Your task to perform on an android device: Open the calendar and show me this week's events Image 0: 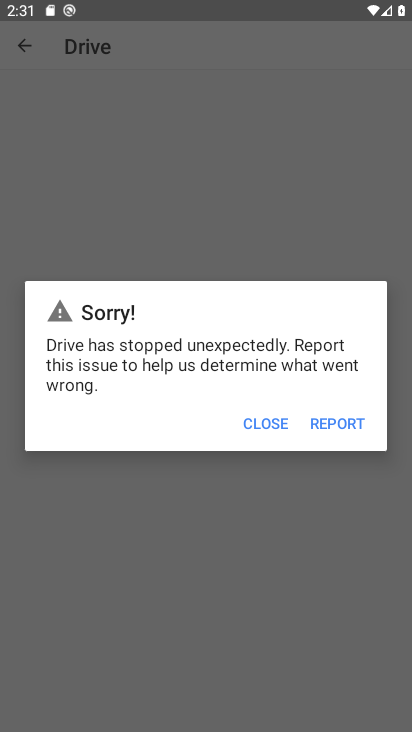
Step 0: press home button
Your task to perform on an android device: Open the calendar and show me this week's events Image 1: 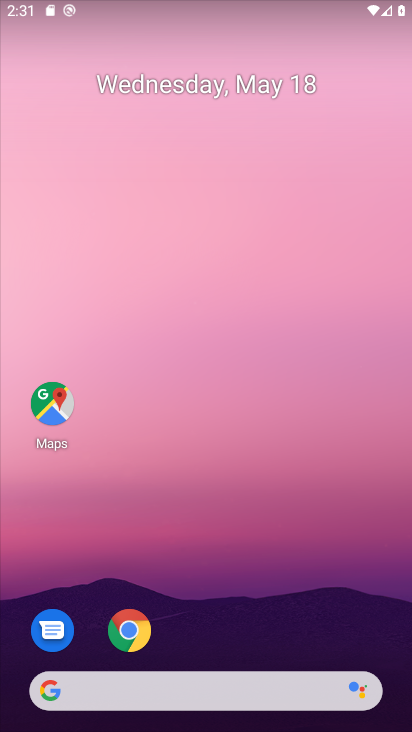
Step 1: drag from (205, 648) to (202, 190)
Your task to perform on an android device: Open the calendar and show me this week's events Image 2: 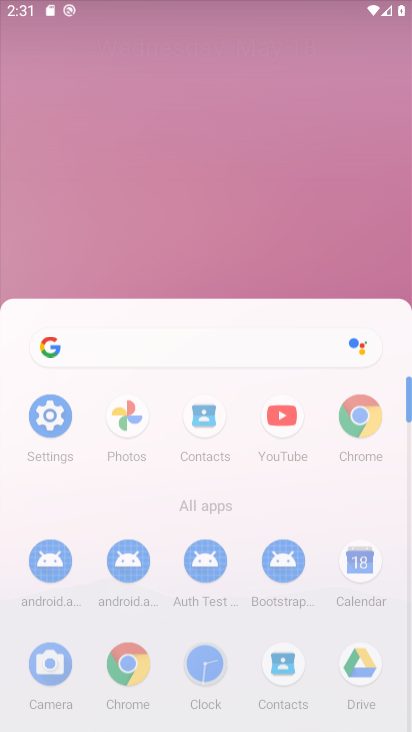
Step 2: click (211, 25)
Your task to perform on an android device: Open the calendar and show me this week's events Image 3: 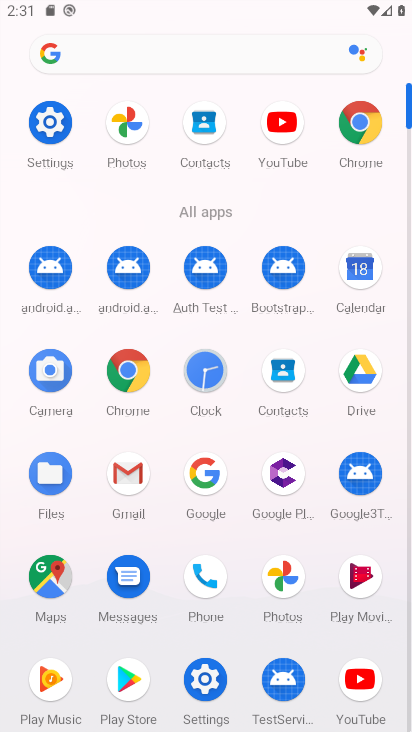
Step 3: click (355, 264)
Your task to perform on an android device: Open the calendar and show me this week's events Image 4: 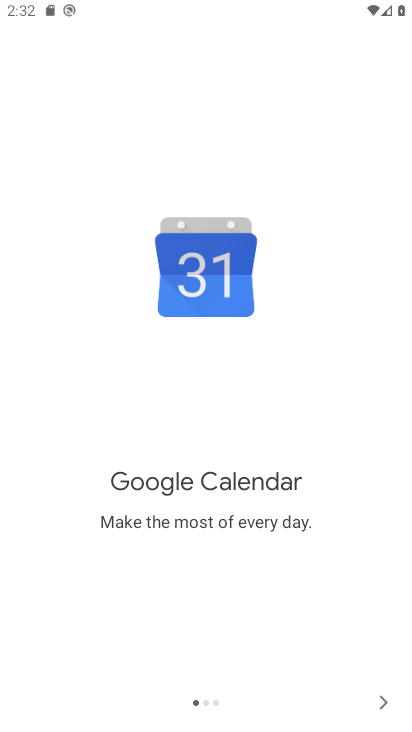
Step 4: click (383, 700)
Your task to perform on an android device: Open the calendar and show me this week's events Image 5: 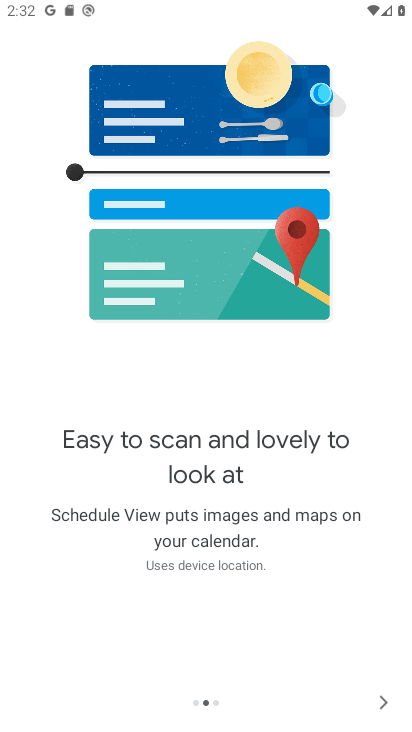
Step 5: click (383, 700)
Your task to perform on an android device: Open the calendar and show me this week's events Image 6: 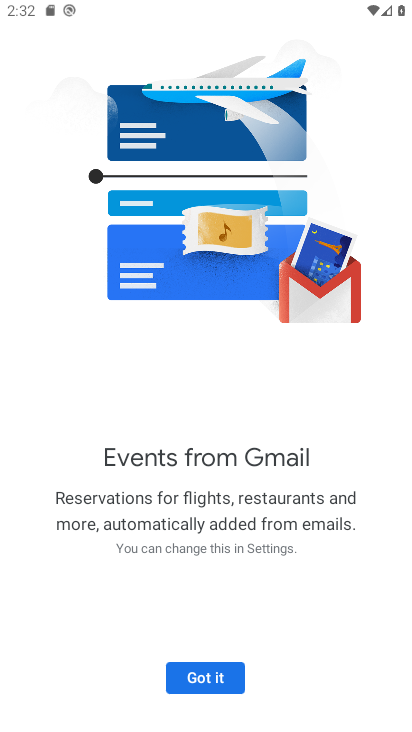
Step 6: click (208, 674)
Your task to perform on an android device: Open the calendar and show me this week's events Image 7: 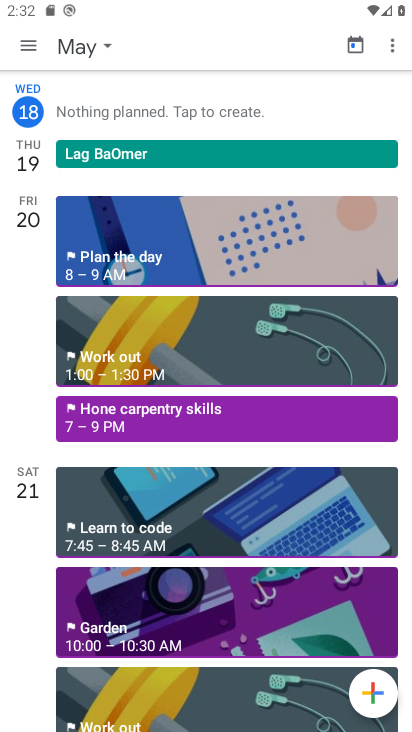
Step 7: drag from (25, 240) to (31, 449)
Your task to perform on an android device: Open the calendar and show me this week's events Image 8: 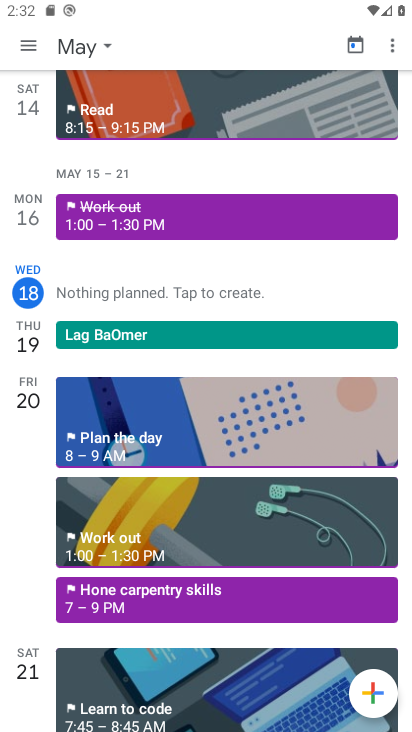
Step 8: click (18, 327)
Your task to perform on an android device: Open the calendar and show me this week's events Image 9: 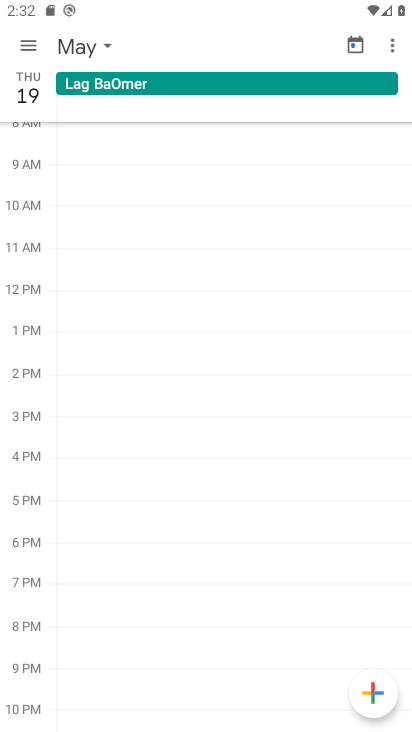
Step 9: click (41, 109)
Your task to perform on an android device: Open the calendar and show me this week's events Image 10: 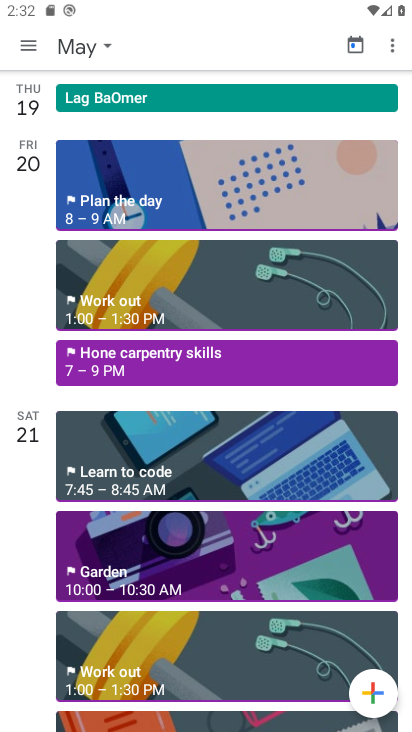
Step 10: task complete